Your task to perform on an android device: create a new album in the google photos Image 0: 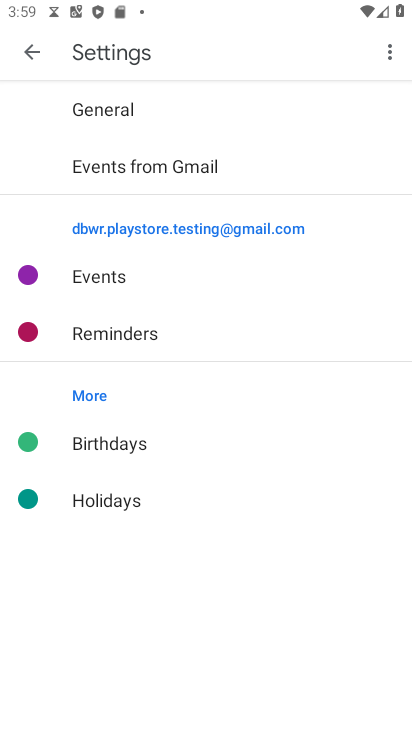
Step 0: drag from (219, 679) to (232, 188)
Your task to perform on an android device: create a new album in the google photos Image 1: 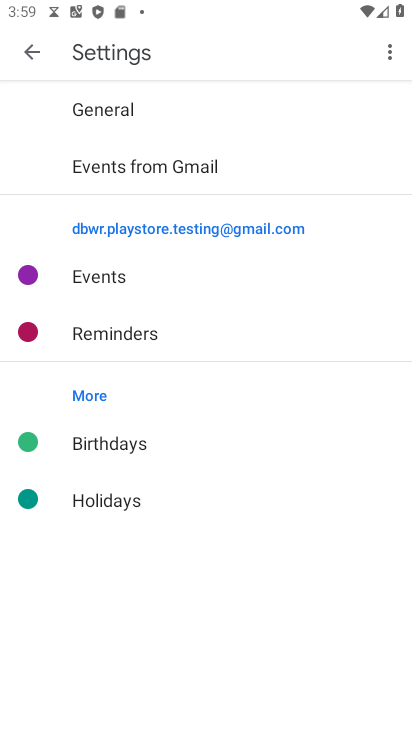
Step 1: press back button
Your task to perform on an android device: create a new album in the google photos Image 2: 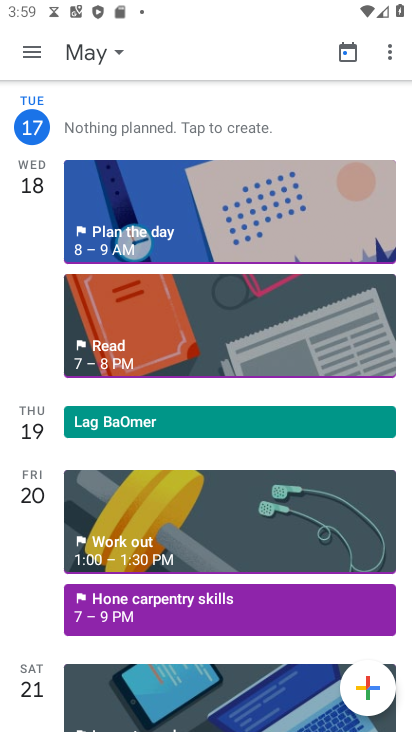
Step 2: press home button
Your task to perform on an android device: create a new album in the google photos Image 3: 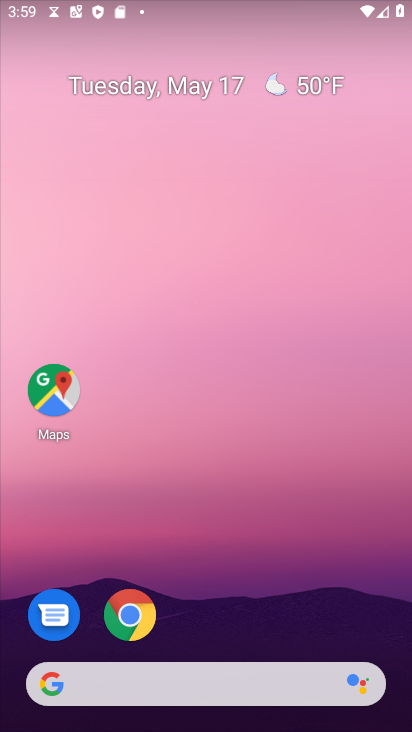
Step 3: drag from (258, 655) to (127, 121)
Your task to perform on an android device: create a new album in the google photos Image 4: 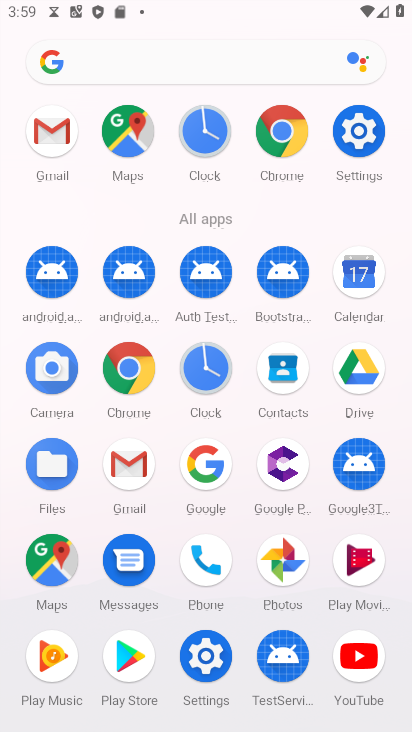
Step 4: click (286, 563)
Your task to perform on an android device: create a new album in the google photos Image 5: 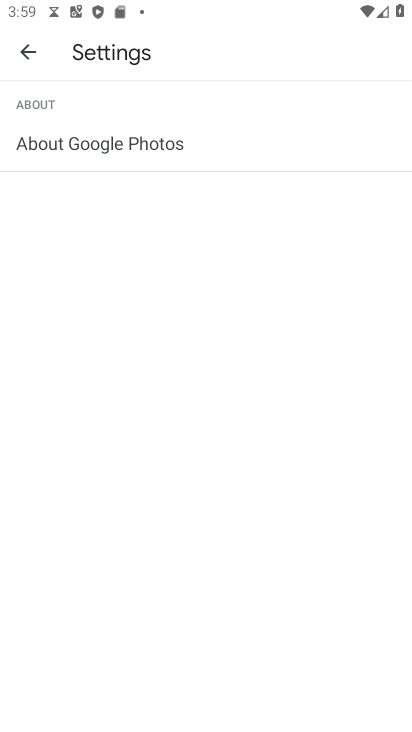
Step 5: click (20, 54)
Your task to perform on an android device: create a new album in the google photos Image 6: 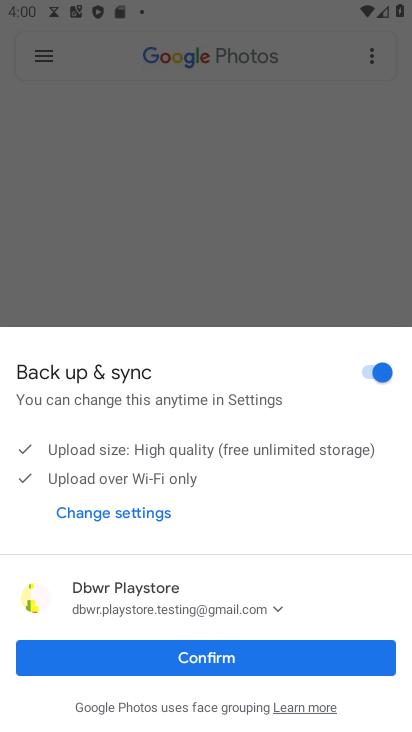
Step 6: click (217, 699)
Your task to perform on an android device: create a new album in the google photos Image 7: 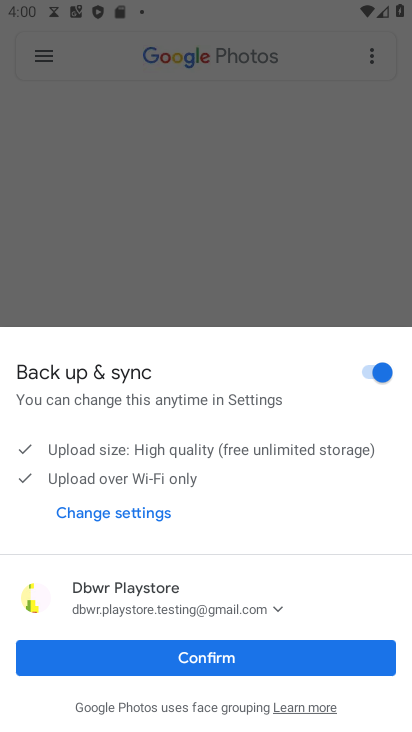
Step 7: click (218, 699)
Your task to perform on an android device: create a new album in the google photos Image 8: 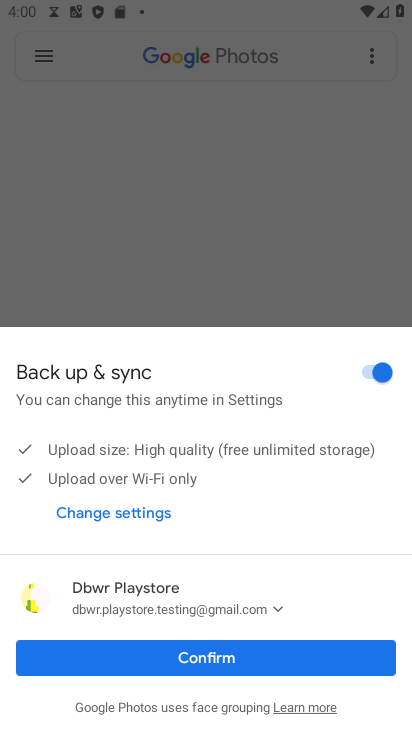
Step 8: click (225, 661)
Your task to perform on an android device: create a new album in the google photos Image 9: 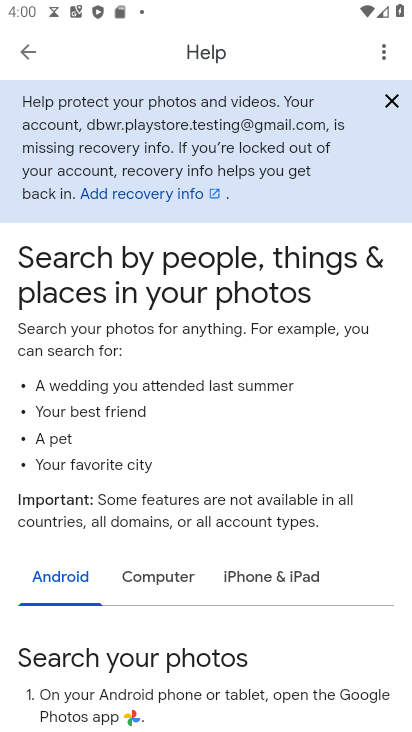
Step 9: click (28, 50)
Your task to perform on an android device: create a new album in the google photos Image 10: 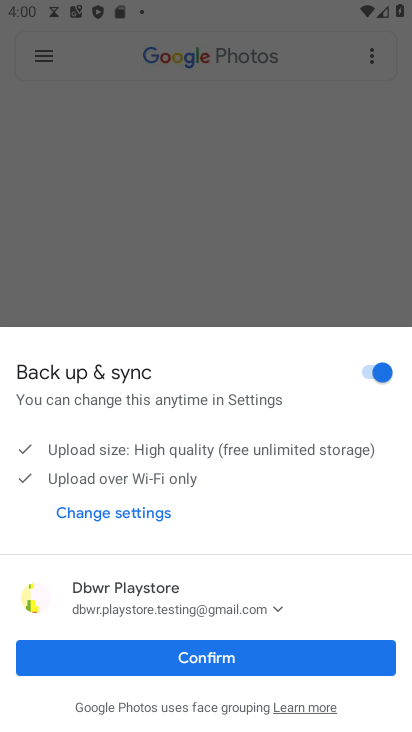
Step 10: click (205, 657)
Your task to perform on an android device: create a new album in the google photos Image 11: 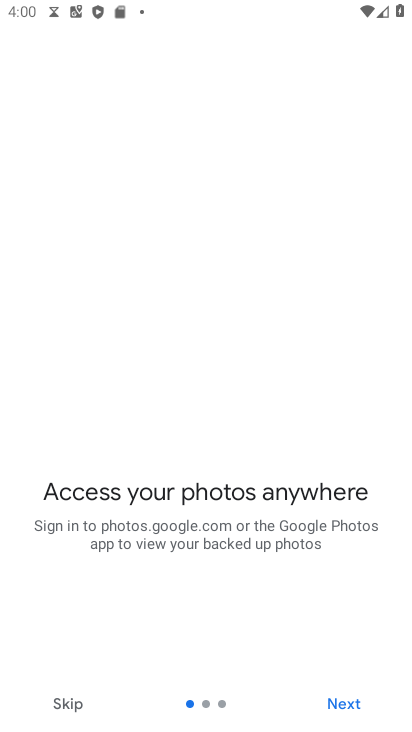
Step 11: click (349, 705)
Your task to perform on an android device: create a new album in the google photos Image 12: 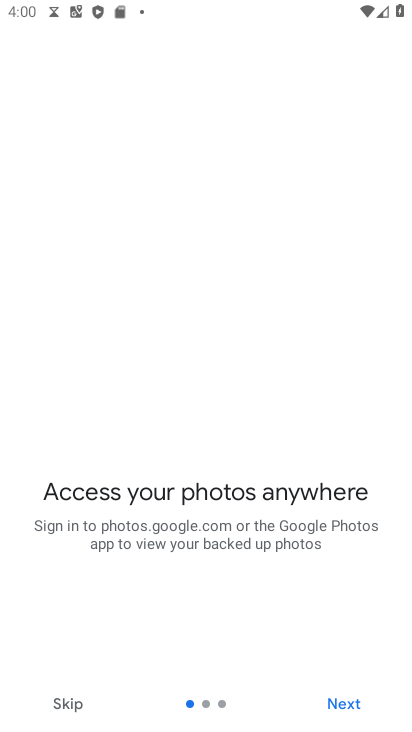
Step 12: click (349, 705)
Your task to perform on an android device: create a new album in the google photos Image 13: 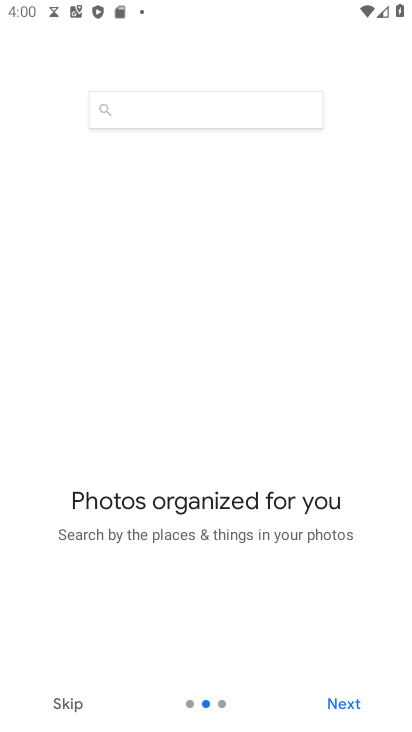
Step 13: click (349, 705)
Your task to perform on an android device: create a new album in the google photos Image 14: 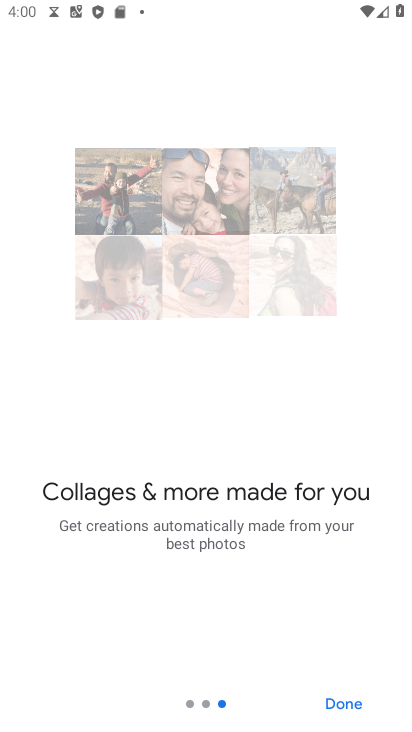
Step 14: click (349, 705)
Your task to perform on an android device: create a new album in the google photos Image 15: 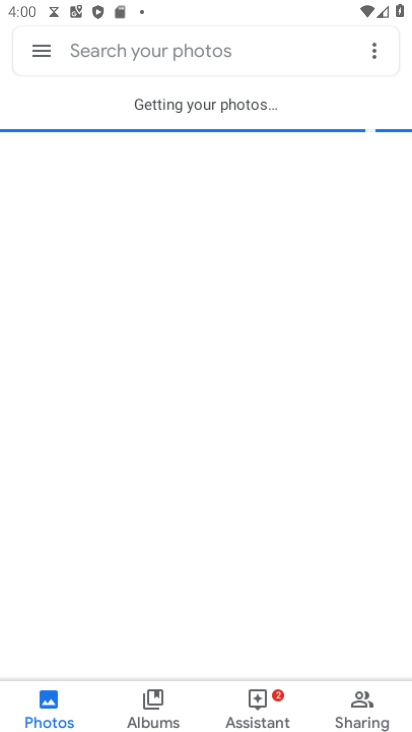
Step 15: click (349, 705)
Your task to perform on an android device: create a new album in the google photos Image 16: 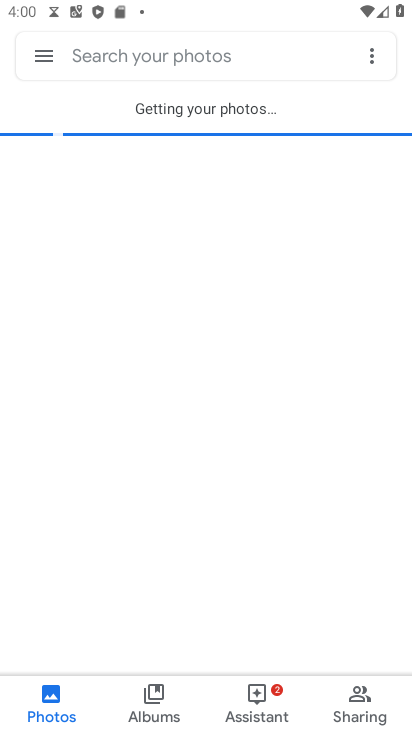
Step 16: click (349, 705)
Your task to perform on an android device: create a new album in the google photos Image 17: 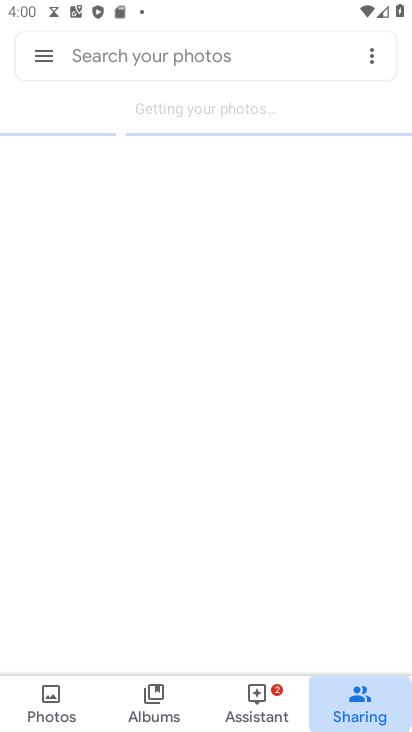
Step 17: click (349, 705)
Your task to perform on an android device: create a new album in the google photos Image 18: 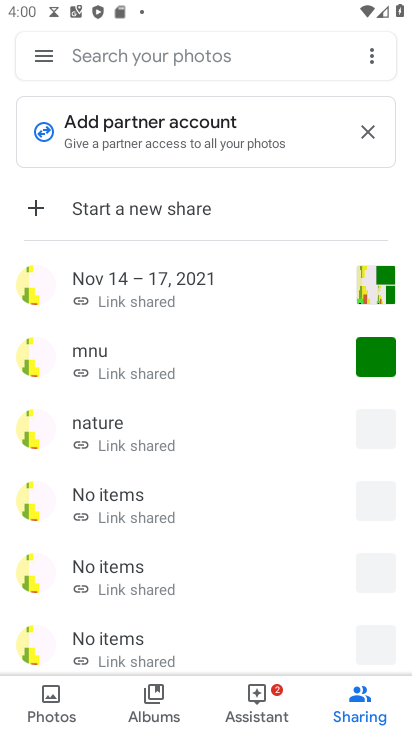
Step 18: click (360, 121)
Your task to perform on an android device: create a new album in the google photos Image 19: 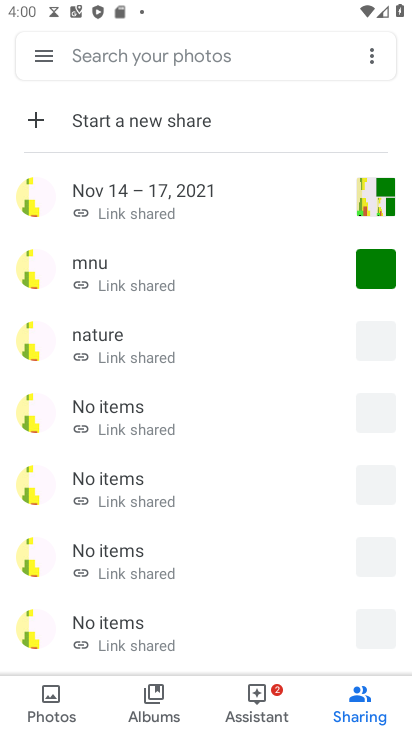
Step 19: click (368, 50)
Your task to perform on an android device: create a new album in the google photos Image 20: 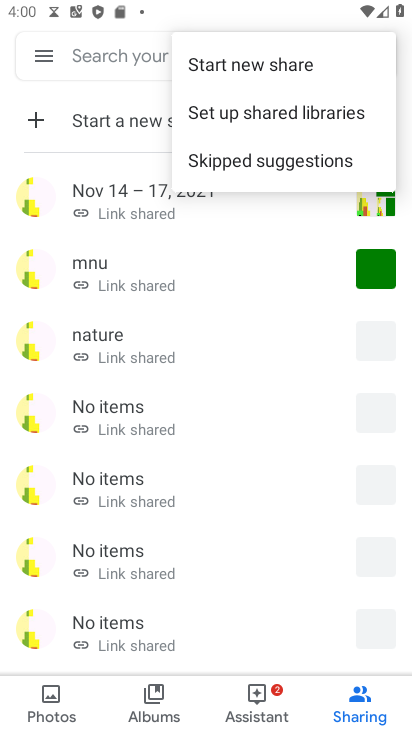
Step 20: click (265, 412)
Your task to perform on an android device: create a new album in the google photos Image 21: 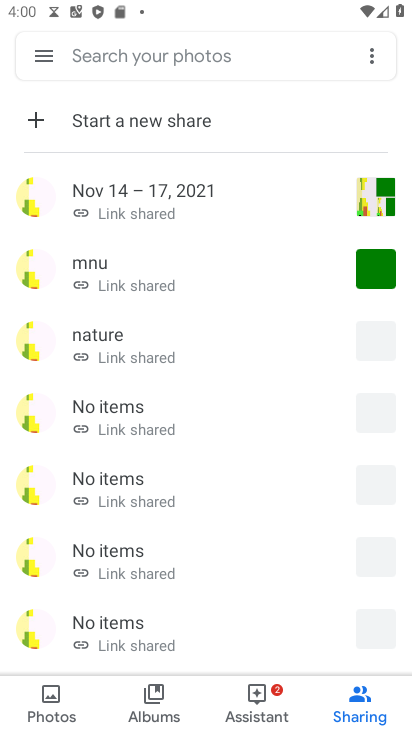
Step 21: press back button
Your task to perform on an android device: create a new album in the google photos Image 22: 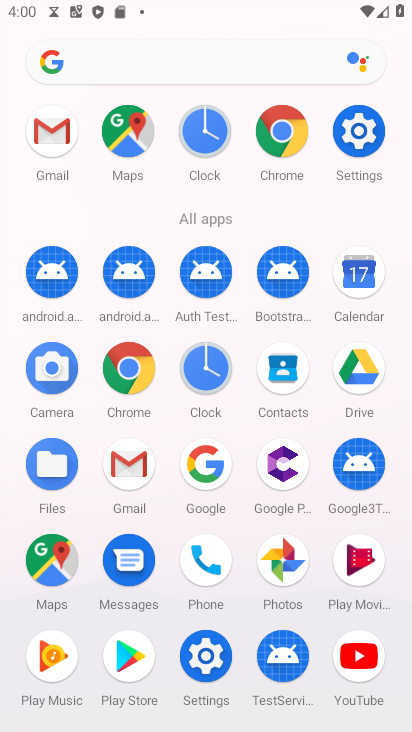
Step 22: click (280, 561)
Your task to perform on an android device: create a new album in the google photos Image 23: 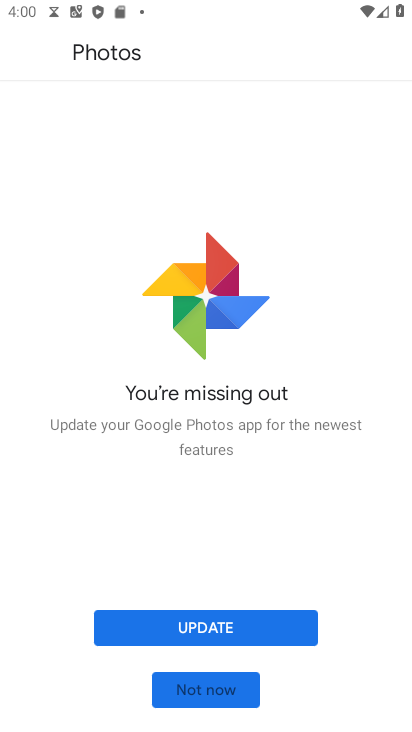
Step 23: click (205, 688)
Your task to perform on an android device: create a new album in the google photos Image 24: 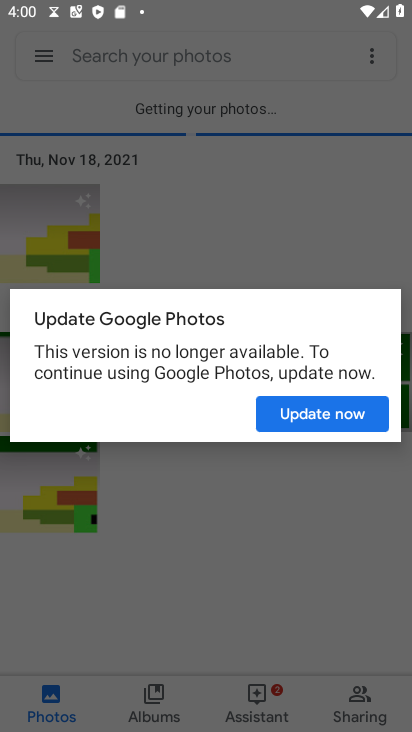
Step 24: click (321, 422)
Your task to perform on an android device: create a new album in the google photos Image 25: 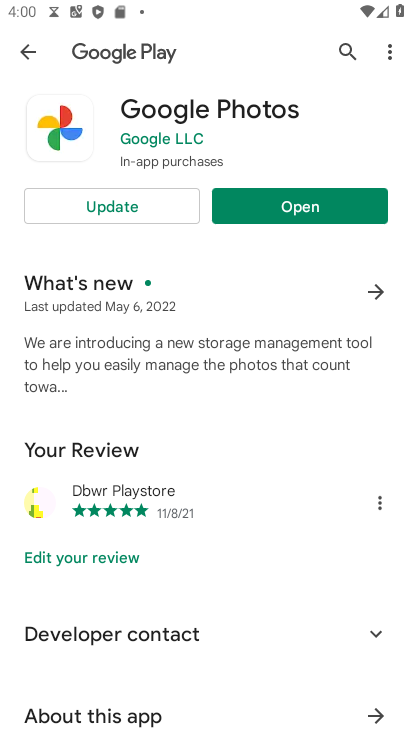
Step 25: click (145, 203)
Your task to perform on an android device: create a new album in the google photos Image 26: 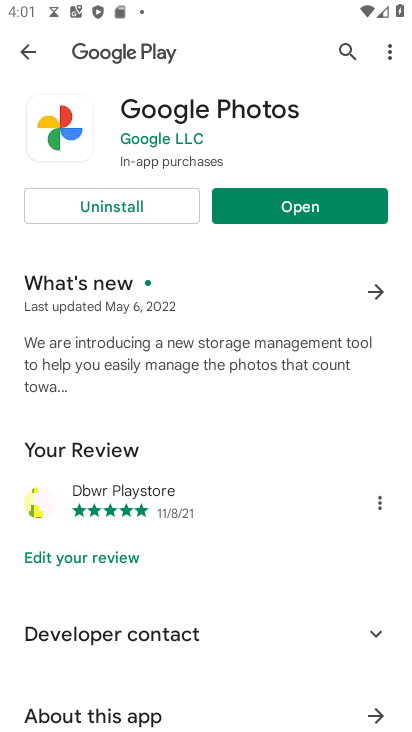
Step 26: click (304, 207)
Your task to perform on an android device: create a new album in the google photos Image 27: 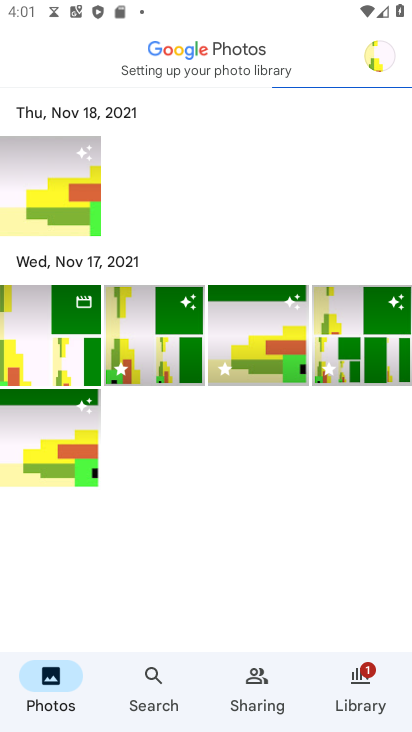
Step 27: task complete